Your task to perform on an android device: Go to wifi settings Image 0: 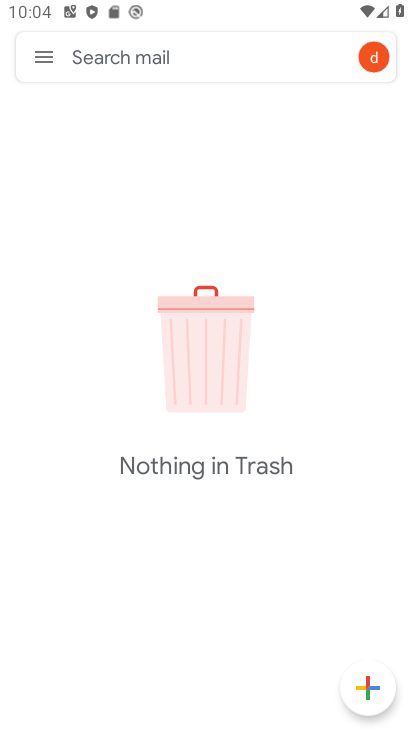
Step 0: press home button
Your task to perform on an android device: Go to wifi settings Image 1: 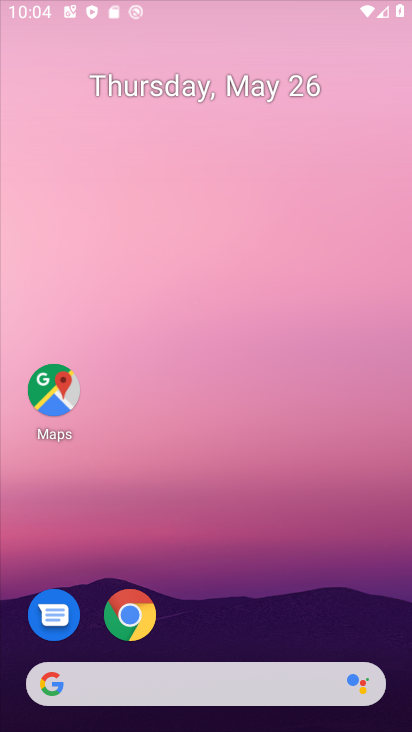
Step 1: drag from (199, 688) to (295, 111)
Your task to perform on an android device: Go to wifi settings Image 2: 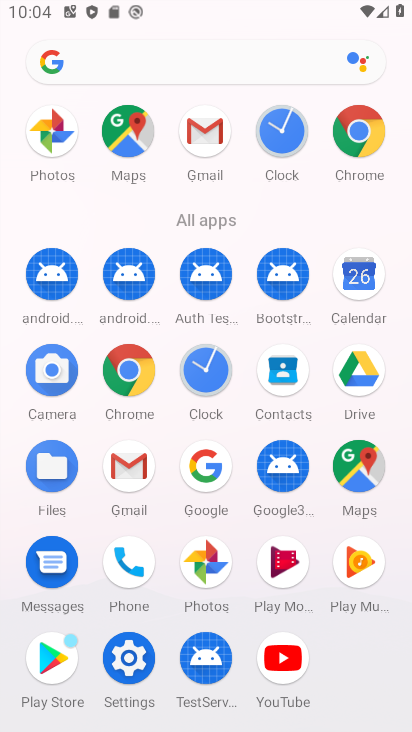
Step 2: click (132, 666)
Your task to perform on an android device: Go to wifi settings Image 3: 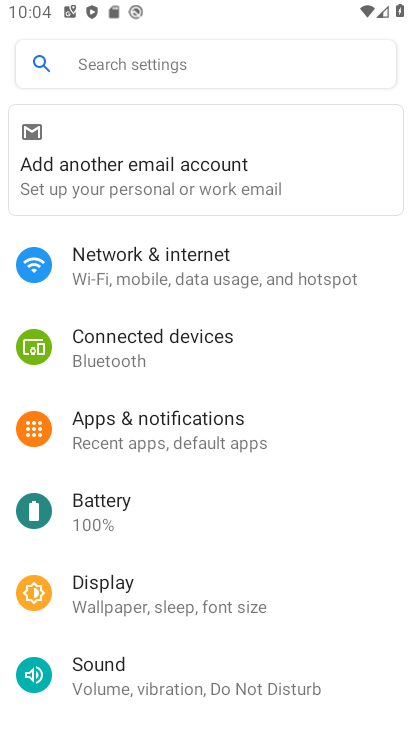
Step 3: click (158, 255)
Your task to perform on an android device: Go to wifi settings Image 4: 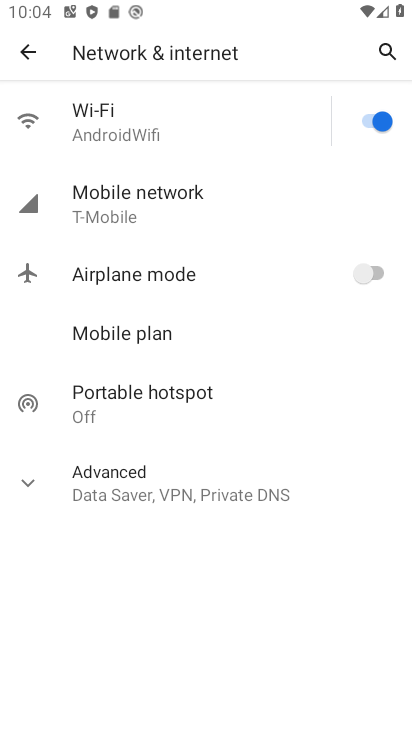
Step 4: click (159, 126)
Your task to perform on an android device: Go to wifi settings Image 5: 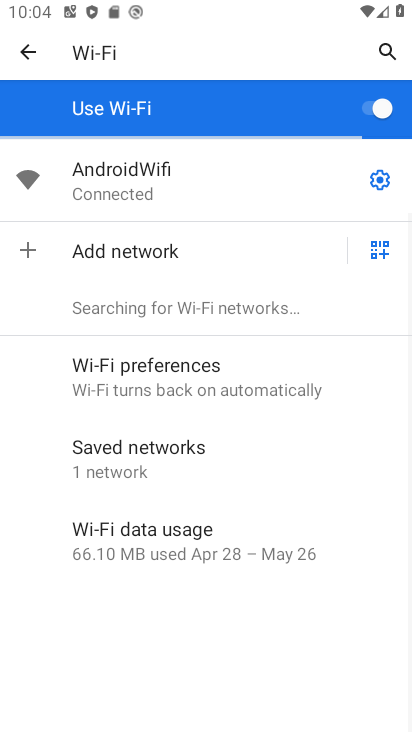
Step 5: task complete